Your task to perform on an android device: add a label to a message in the gmail app Image 0: 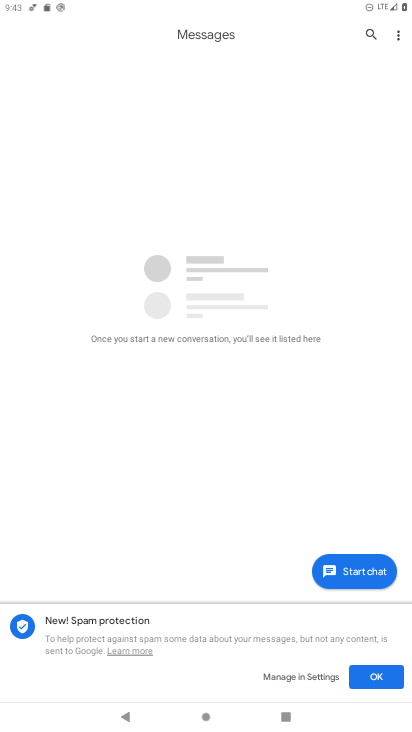
Step 0: press home button
Your task to perform on an android device: add a label to a message in the gmail app Image 1: 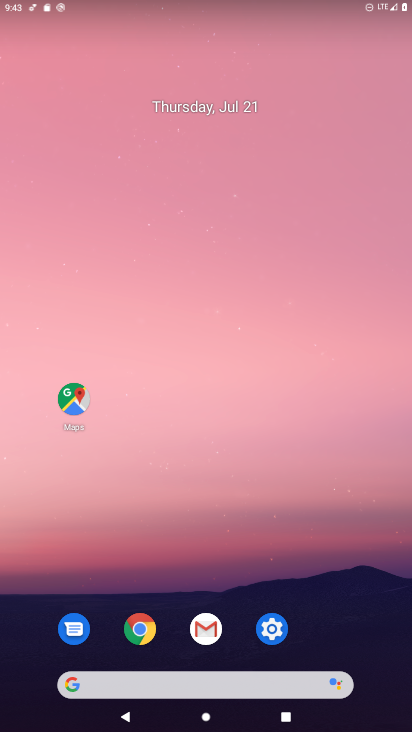
Step 1: click (198, 635)
Your task to perform on an android device: add a label to a message in the gmail app Image 2: 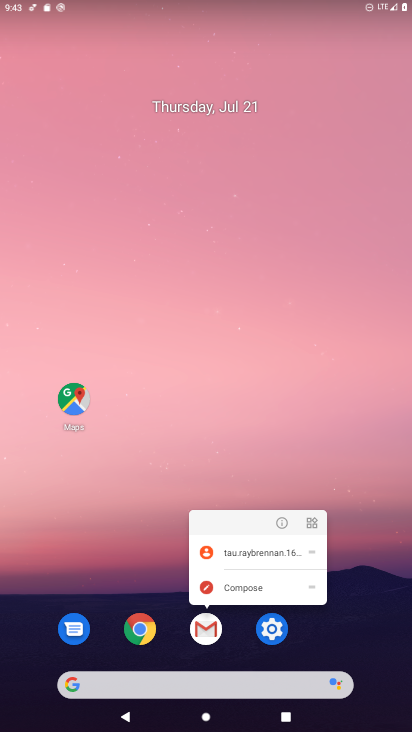
Step 2: click (209, 636)
Your task to perform on an android device: add a label to a message in the gmail app Image 3: 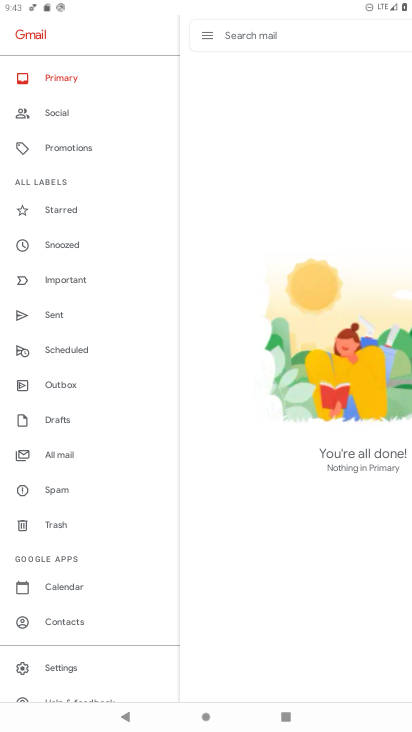
Step 3: click (58, 673)
Your task to perform on an android device: add a label to a message in the gmail app Image 4: 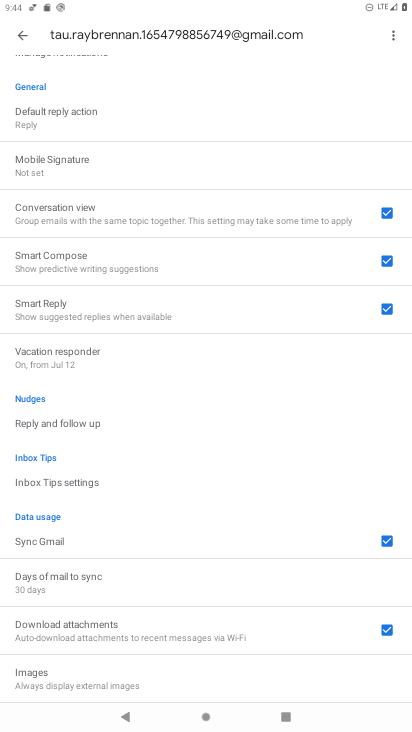
Step 4: drag from (74, 307) to (22, 483)
Your task to perform on an android device: add a label to a message in the gmail app Image 5: 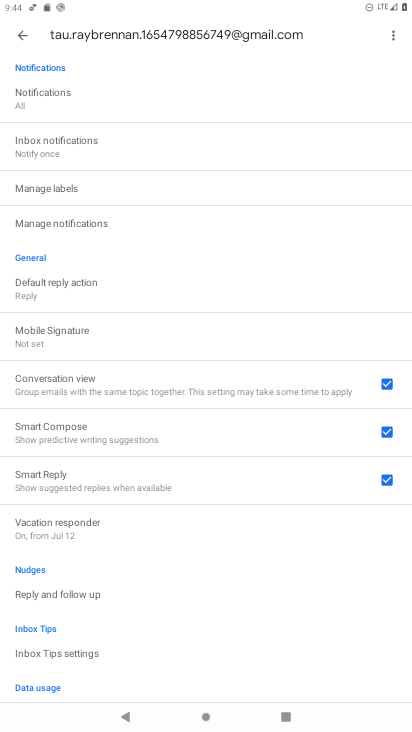
Step 5: click (102, 193)
Your task to perform on an android device: add a label to a message in the gmail app Image 6: 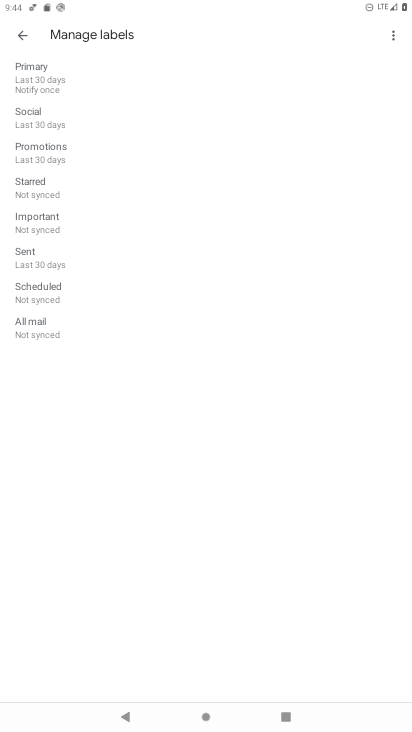
Step 6: click (48, 217)
Your task to perform on an android device: add a label to a message in the gmail app Image 7: 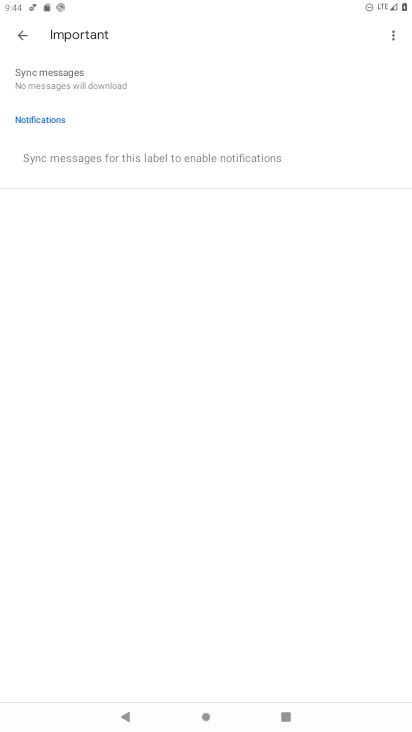
Step 7: task complete